Your task to perform on an android device: change notifications settings Image 0: 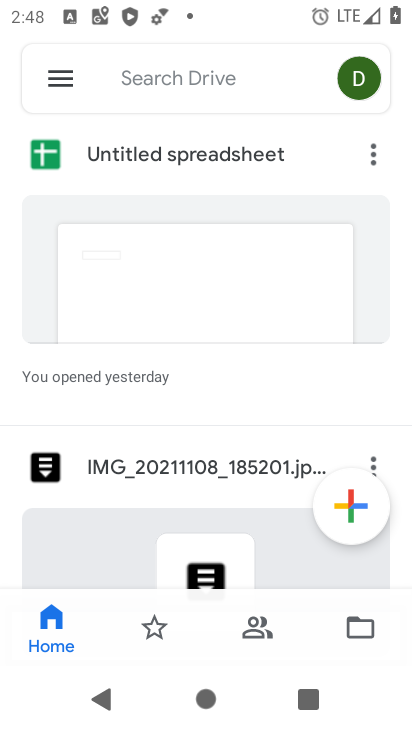
Step 0: press home button
Your task to perform on an android device: change notifications settings Image 1: 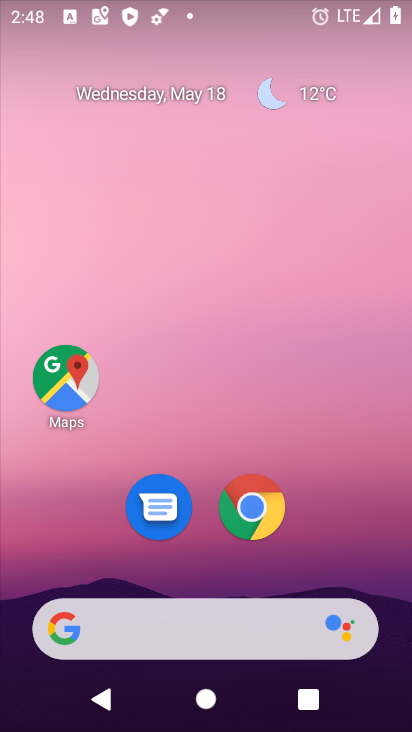
Step 1: drag from (393, 596) to (361, 62)
Your task to perform on an android device: change notifications settings Image 2: 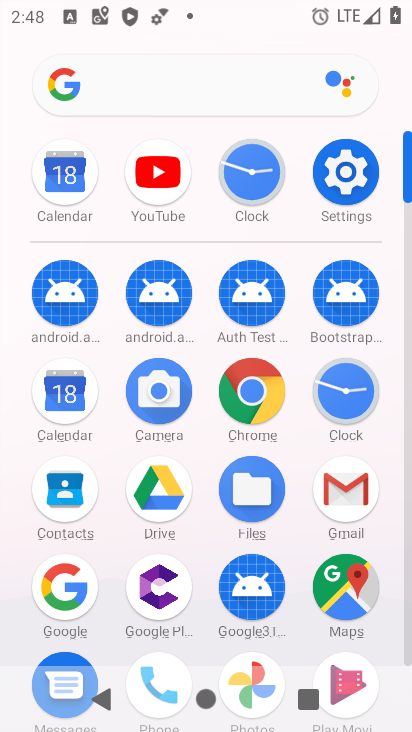
Step 2: click (406, 640)
Your task to perform on an android device: change notifications settings Image 3: 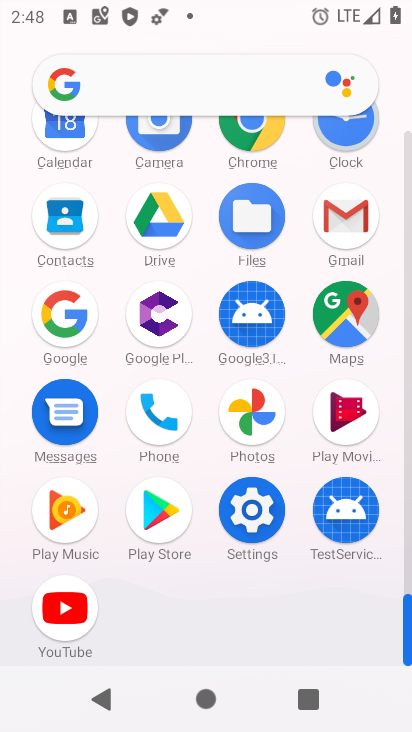
Step 3: click (250, 505)
Your task to perform on an android device: change notifications settings Image 4: 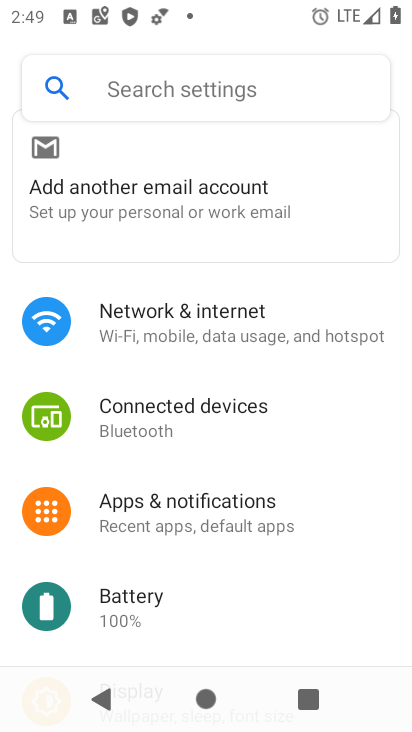
Step 4: click (204, 524)
Your task to perform on an android device: change notifications settings Image 5: 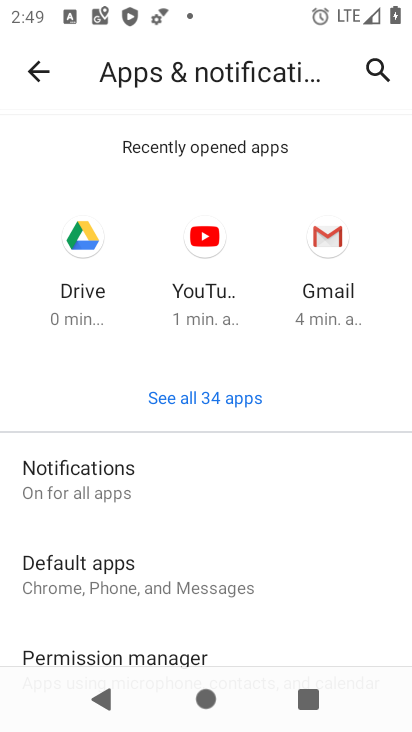
Step 5: click (94, 457)
Your task to perform on an android device: change notifications settings Image 6: 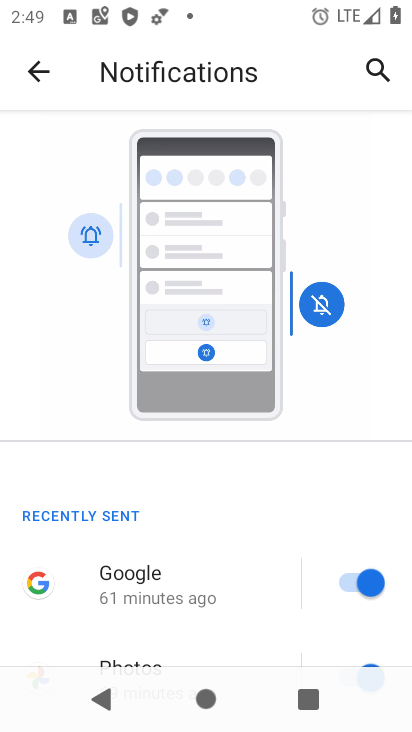
Step 6: drag from (316, 631) to (249, 89)
Your task to perform on an android device: change notifications settings Image 7: 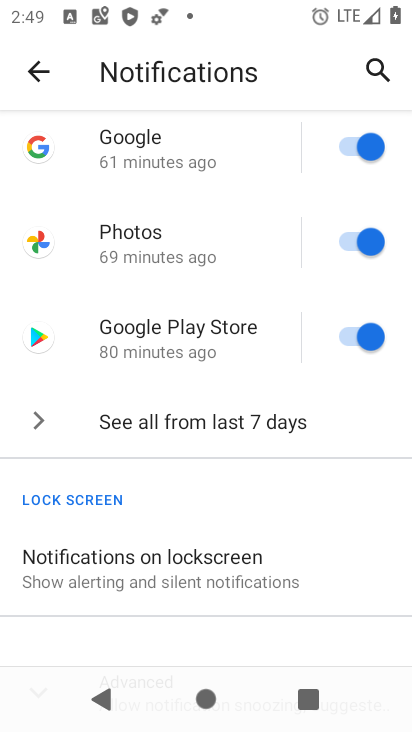
Step 7: drag from (289, 541) to (261, 155)
Your task to perform on an android device: change notifications settings Image 8: 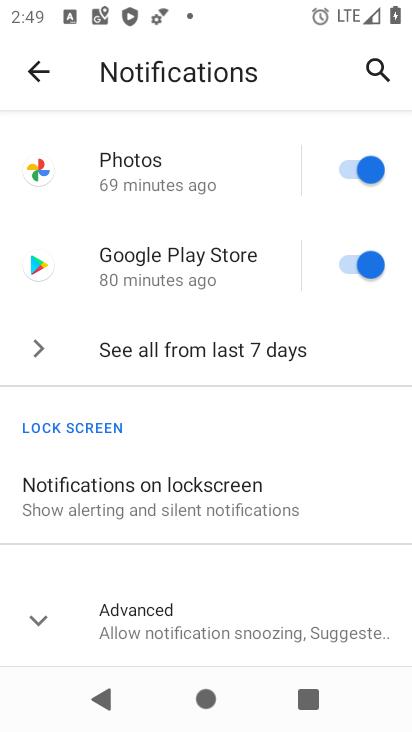
Step 8: click (31, 616)
Your task to perform on an android device: change notifications settings Image 9: 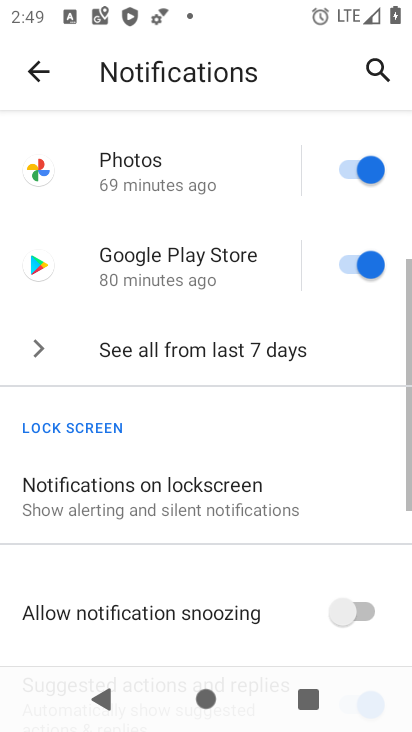
Step 9: drag from (294, 619) to (187, 222)
Your task to perform on an android device: change notifications settings Image 10: 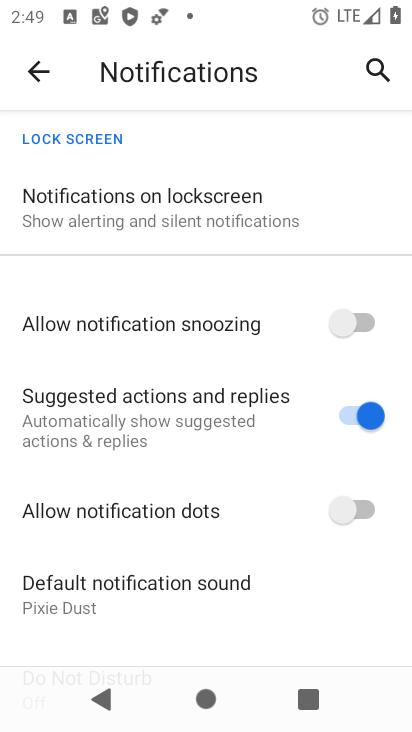
Step 10: drag from (234, 487) to (281, 130)
Your task to perform on an android device: change notifications settings Image 11: 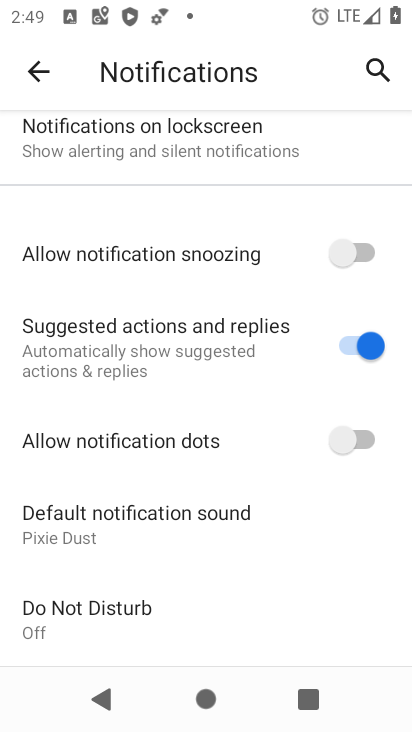
Step 11: click (369, 437)
Your task to perform on an android device: change notifications settings Image 12: 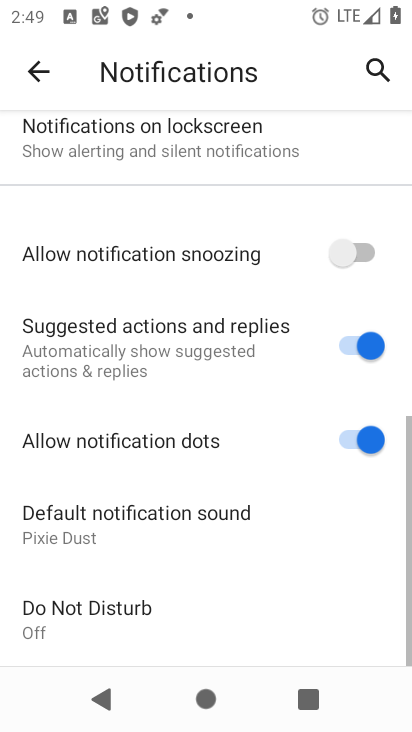
Step 12: click (363, 245)
Your task to perform on an android device: change notifications settings Image 13: 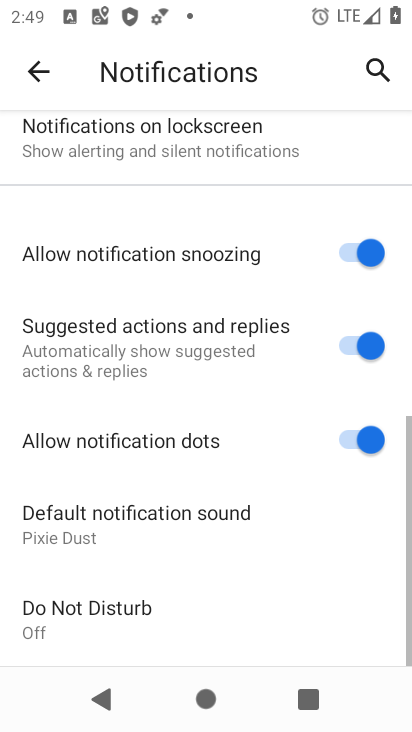
Step 13: task complete